Your task to perform on an android device: open wifi settings Image 0: 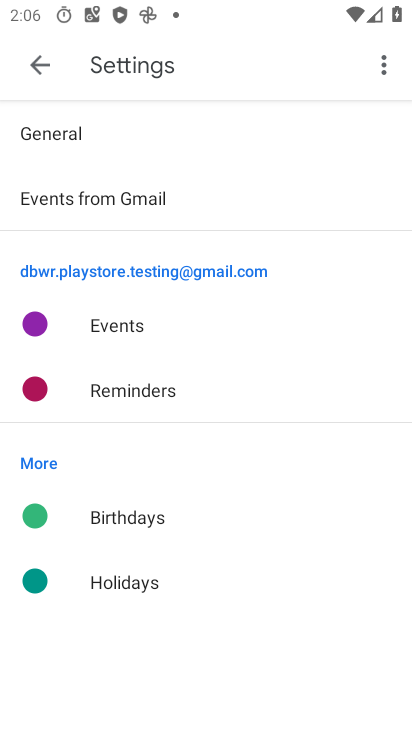
Step 0: press home button
Your task to perform on an android device: open wifi settings Image 1: 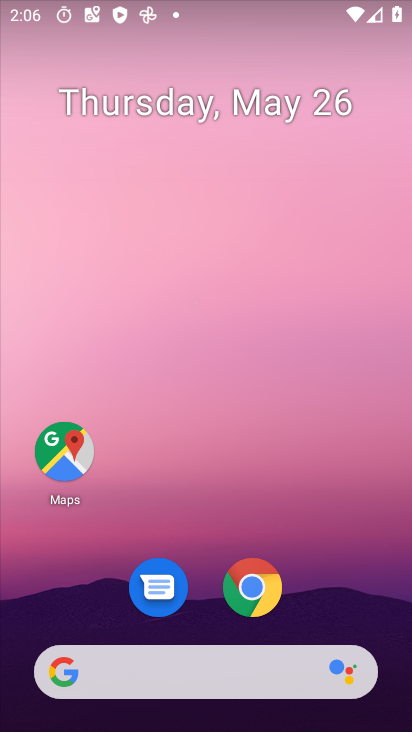
Step 1: drag from (363, 626) to (389, 257)
Your task to perform on an android device: open wifi settings Image 2: 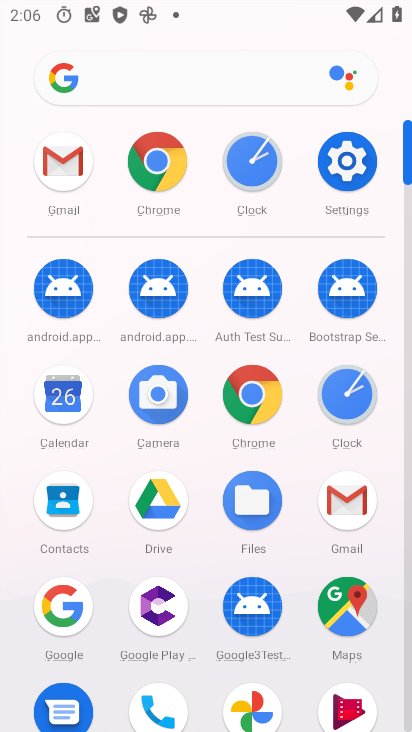
Step 2: click (361, 183)
Your task to perform on an android device: open wifi settings Image 3: 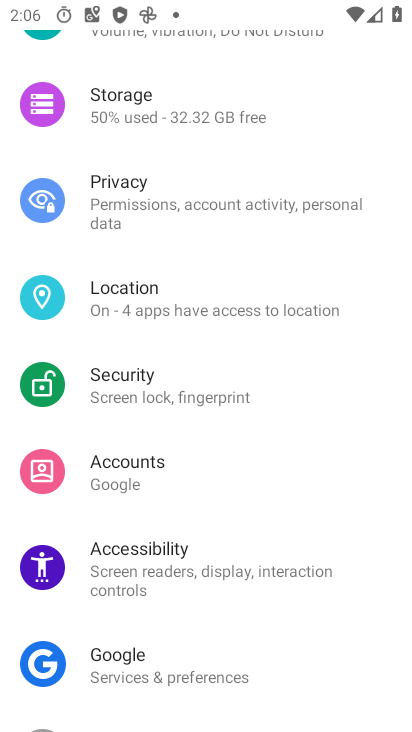
Step 3: drag from (359, 471) to (358, 360)
Your task to perform on an android device: open wifi settings Image 4: 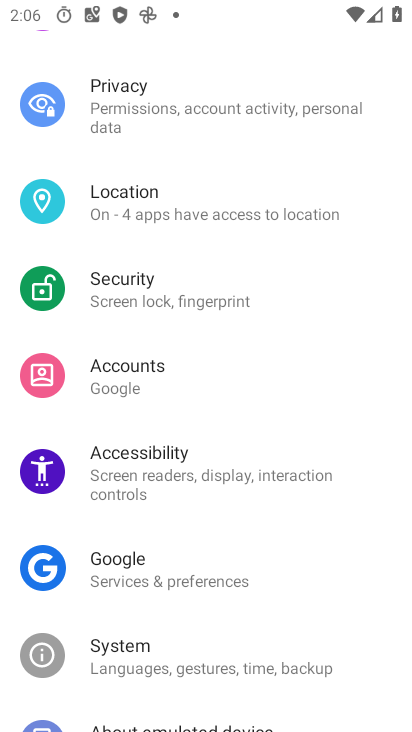
Step 4: drag from (348, 535) to (345, 423)
Your task to perform on an android device: open wifi settings Image 5: 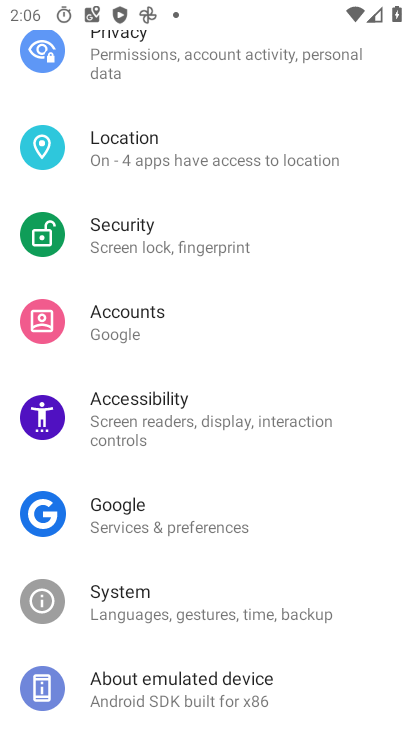
Step 5: drag from (333, 547) to (335, 403)
Your task to perform on an android device: open wifi settings Image 6: 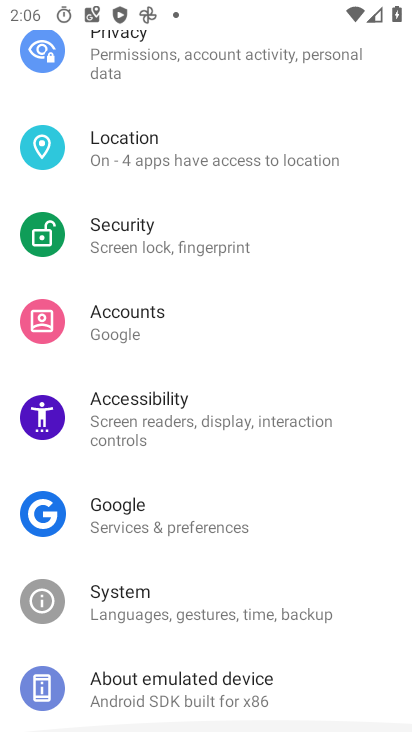
Step 6: drag from (345, 342) to (340, 412)
Your task to perform on an android device: open wifi settings Image 7: 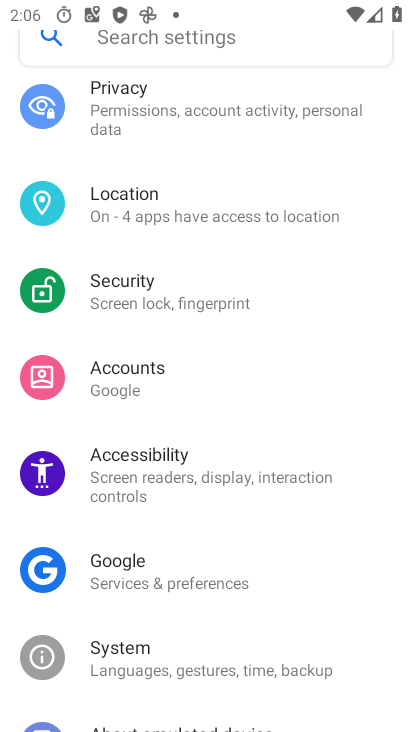
Step 7: drag from (332, 303) to (332, 341)
Your task to perform on an android device: open wifi settings Image 8: 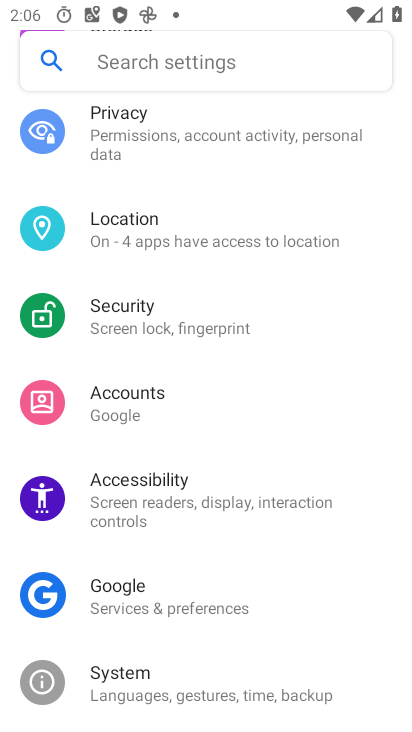
Step 8: drag from (335, 323) to (335, 379)
Your task to perform on an android device: open wifi settings Image 9: 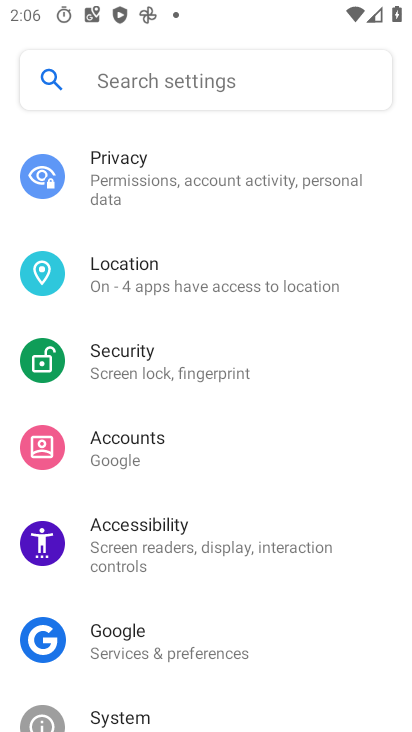
Step 9: drag from (357, 293) to (357, 328)
Your task to perform on an android device: open wifi settings Image 10: 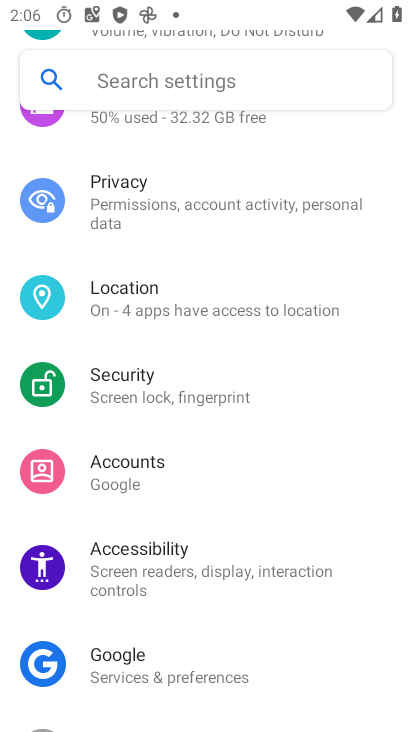
Step 10: drag from (365, 271) to (356, 322)
Your task to perform on an android device: open wifi settings Image 11: 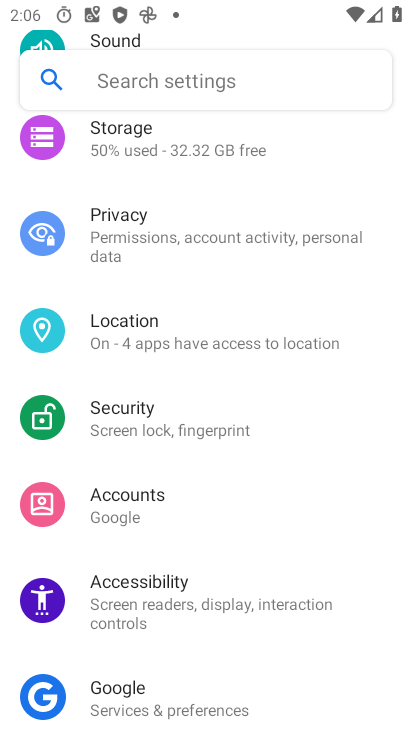
Step 11: drag from (363, 265) to (363, 311)
Your task to perform on an android device: open wifi settings Image 12: 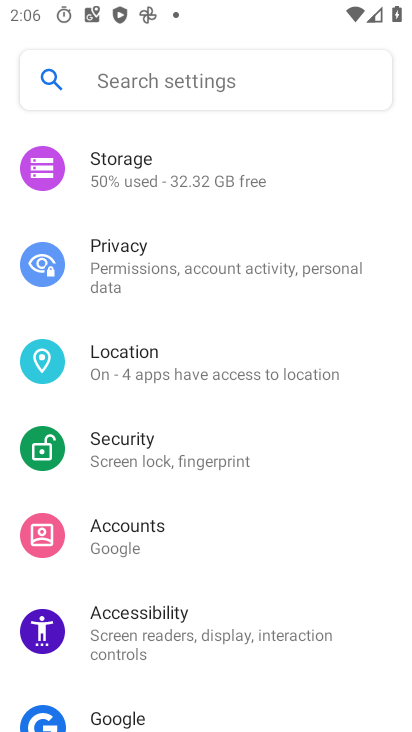
Step 12: drag from (363, 311) to (358, 368)
Your task to perform on an android device: open wifi settings Image 13: 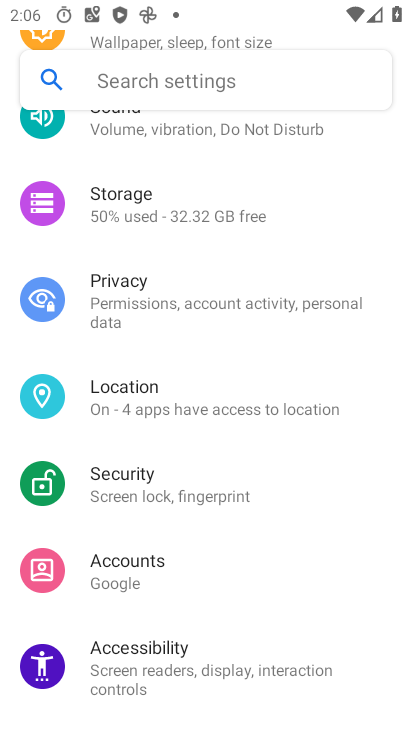
Step 13: drag from (358, 291) to (358, 334)
Your task to perform on an android device: open wifi settings Image 14: 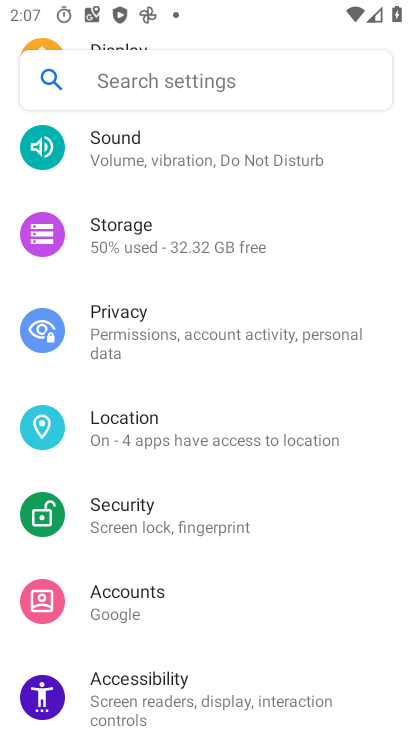
Step 14: drag from (374, 266) to (369, 353)
Your task to perform on an android device: open wifi settings Image 15: 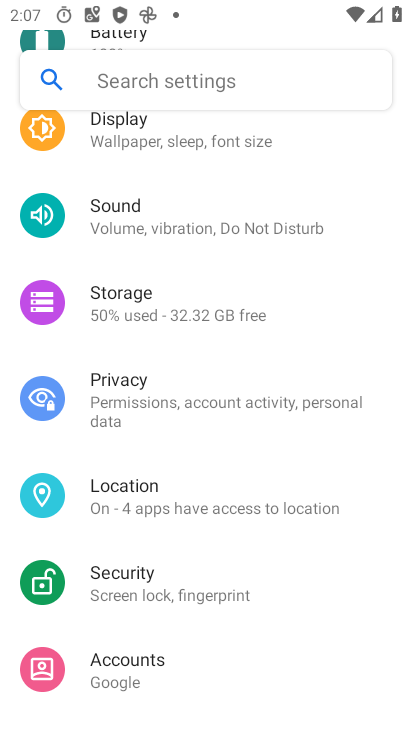
Step 15: click (370, 297)
Your task to perform on an android device: open wifi settings Image 16: 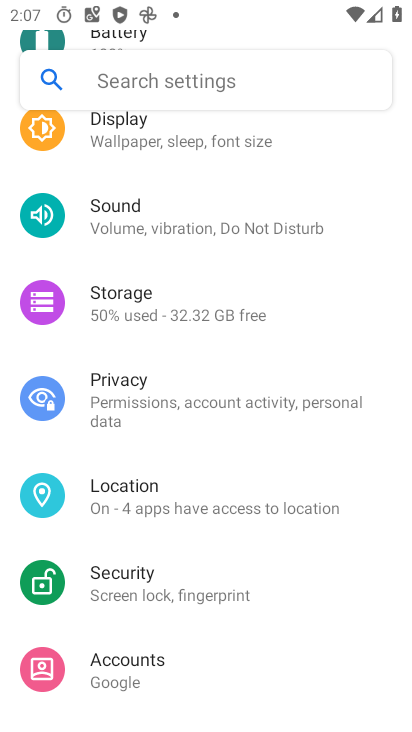
Step 16: drag from (369, 251) to (370, 362)
Your task to perform on an android device: open wifi settings Image 17: 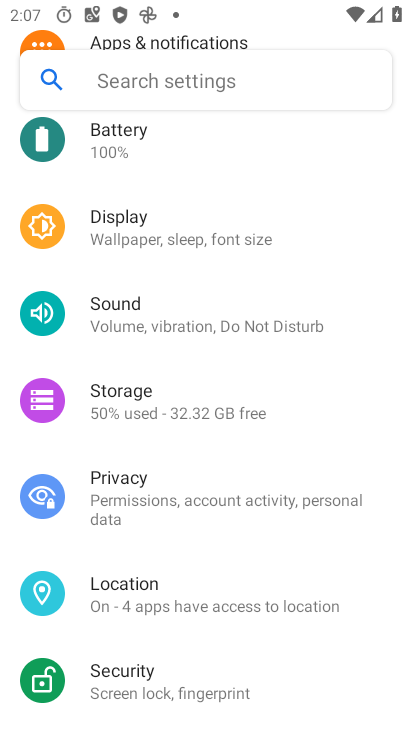
Step 17: drag from (372, 249) to (371, 360)
Your task to perform on an android device: open wifi settings Image 18: 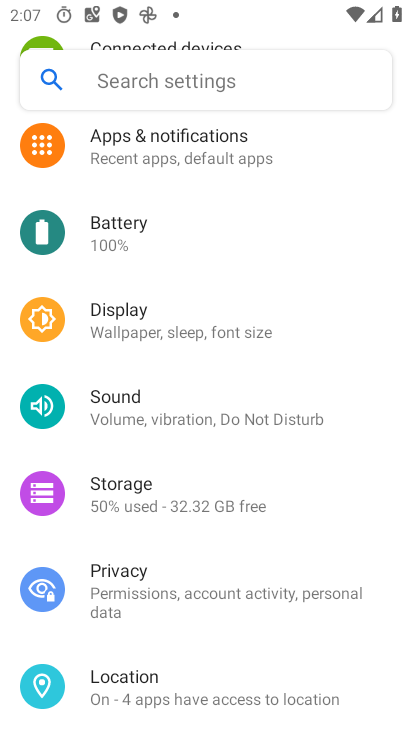
Step 18: drag from (366, 256) to (366, 331)
Your task to perform on an android device: open wifi settings Image 19: 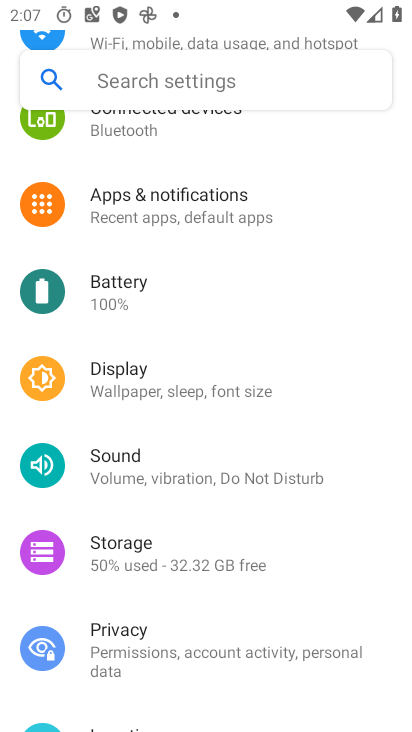
Step 19: drag from (366, 293) to (366, 335)
Your task to perform on an android device: open wifi settings Image 20: 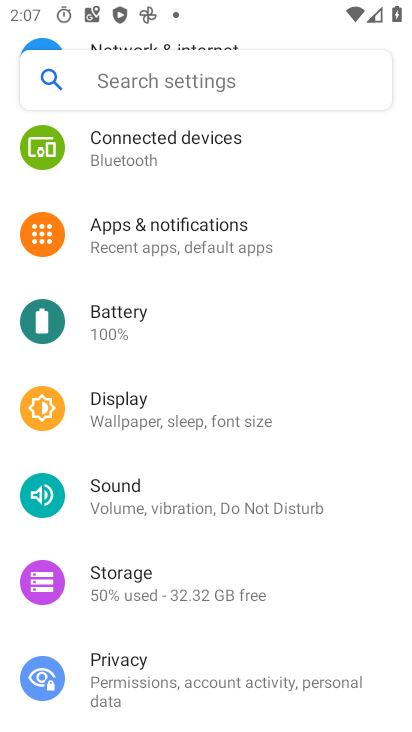
Step 20: drag from (366, 279) to (360, 392)
Your task to perform on an android device: open wifi settings Image 21: 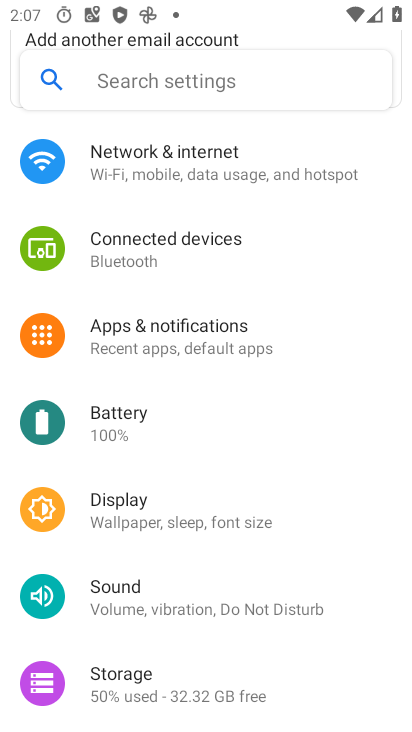
Step 21: drag from (346, 287) to (347, 368)
Your task to perform on an android device: open wifi settings Image 22: 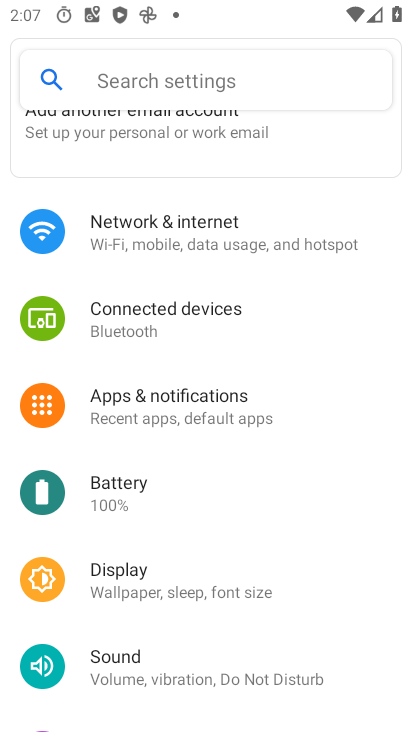
Step 22: click (361, 313)
Your task to perform on an android device: open wifi settings Image 23: 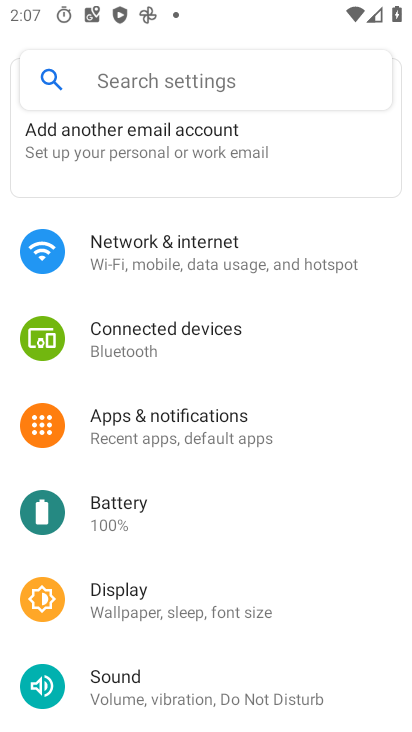
Step 23: drag from (357, 322) to (363, 446)
Your task to perform on an android device: open wifi settings Image 24: 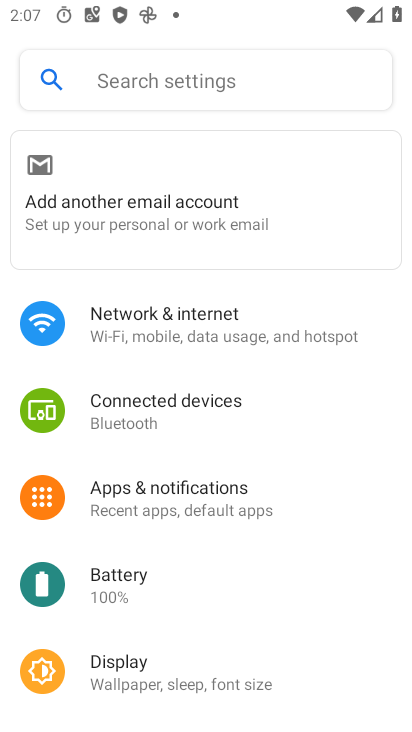
Step 24: click (323, 323)
Your task to perform on an android device: open wifi settings Image 25: 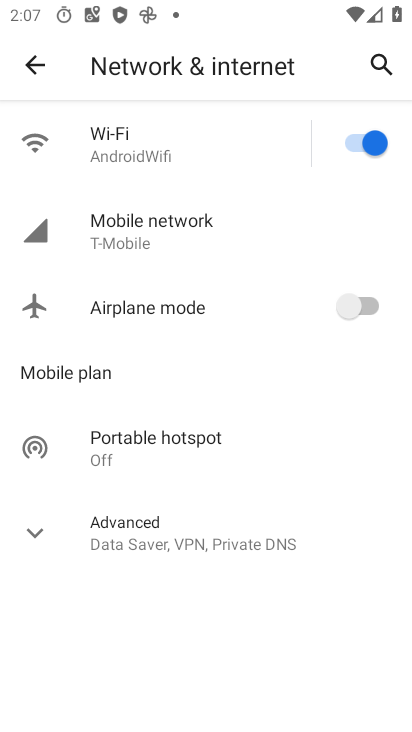
Step 25: click (166, 163)
Your task to perform on an android device: open wifi settings Image 26: 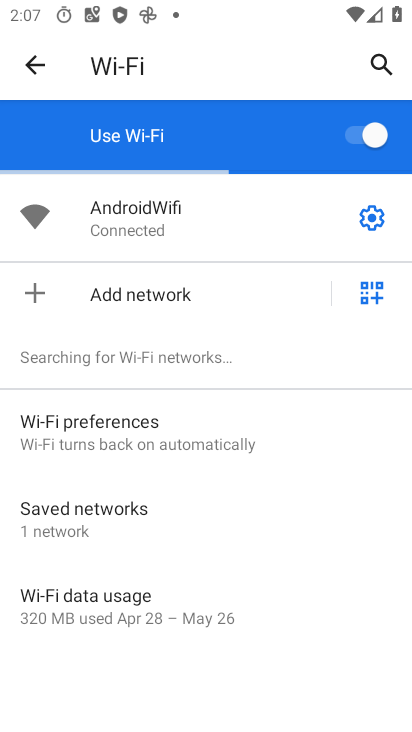
Step 26: task complete